Your task to perform on an android device: Go to accessibility settings Image 0: 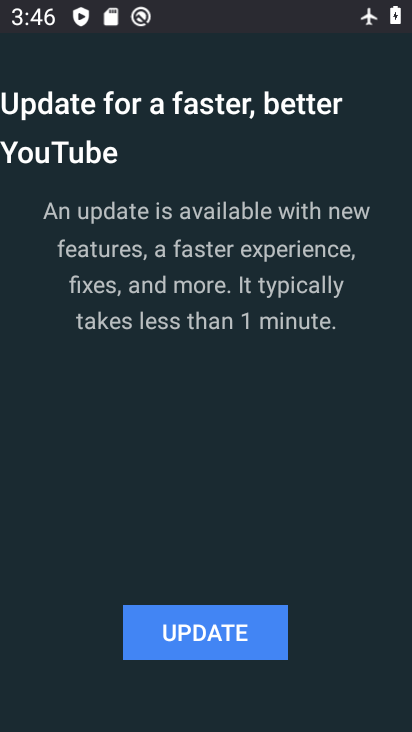
Step 0: press back button
Your task to perform on an android device: Go to accessibility settings Image 1: 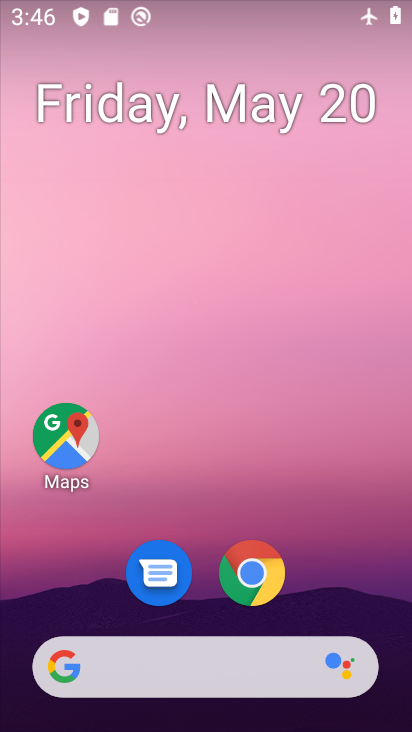
Step 1: drag from (368, 594) to (273, 228)
Your task to perform on an android device: Go to accessibility settings Image 2: 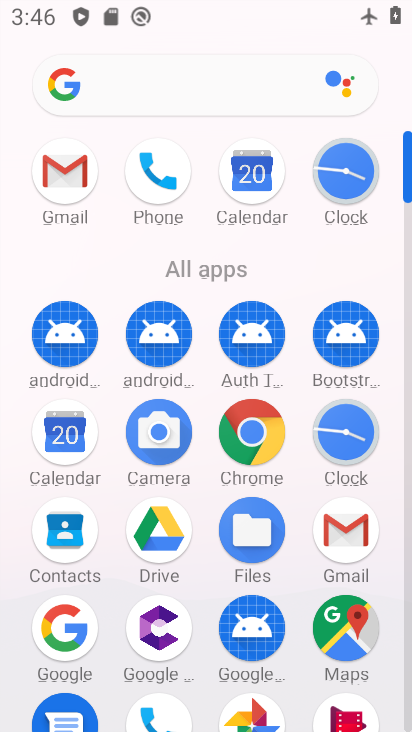
Step 2: click (405, 718)
Your task to perform on an android device: Go to accessibility settings Image 3: 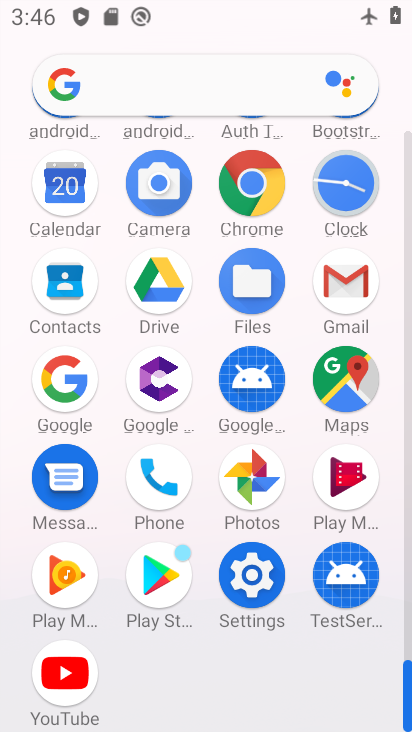
Step 3: click (269, 608)
Your task to perform on an android device: Go to accessibility settings Image 4: 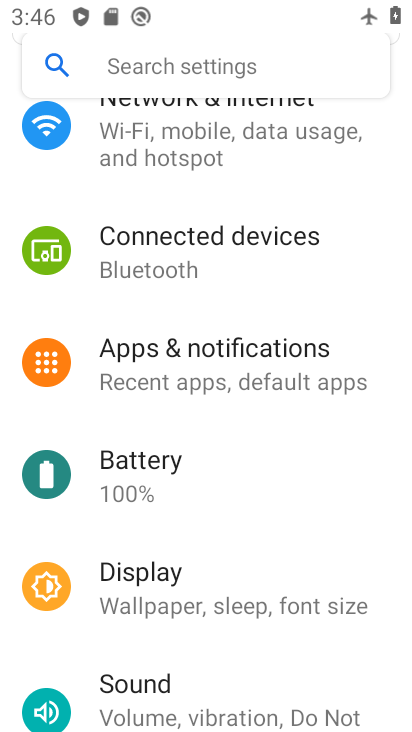
Step 4: drag from (315, 676) to (251, 308)
Your task to perform on an android device: Go to accessibility settings Image 5: 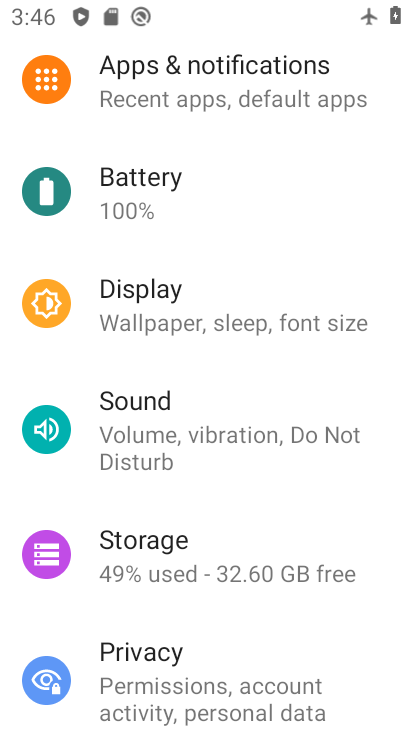
Step 5: drag from (315, 711) to (253, 409)
Your task to perform on an android device: Go to accessibility settings Image 6: 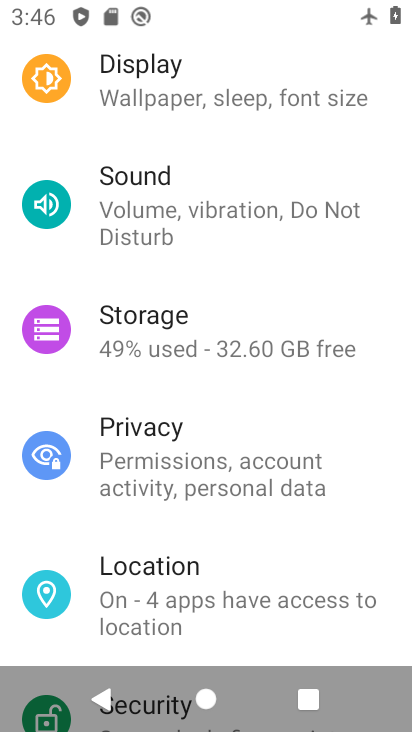
Step 6: drag from (317, 608) to (249, 310)
Your task to perform on an android device: Go to accessibility settings Image 7: 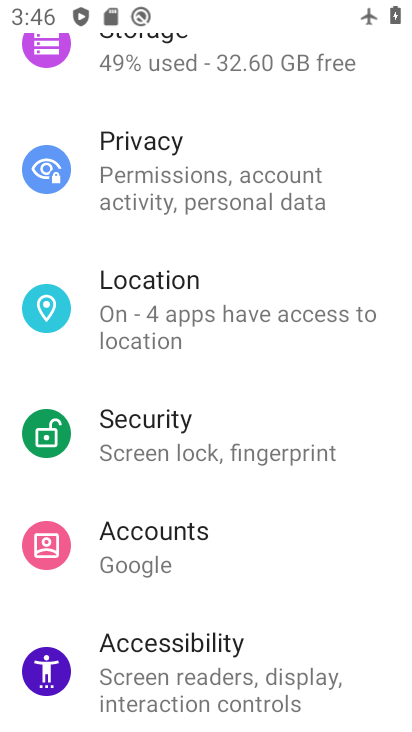
Step 7: click (221, 652)
Your task to perform on an android device: Go to accessibility settings Image 8: 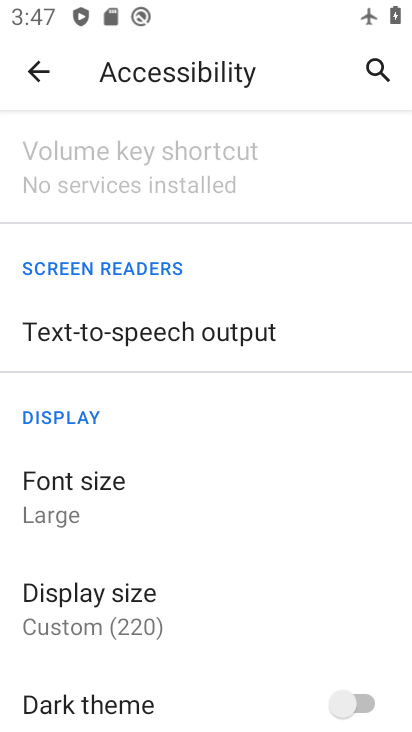
Step 8: task complete